Your task to perform on an android device: turn off airplane mode Image 0: 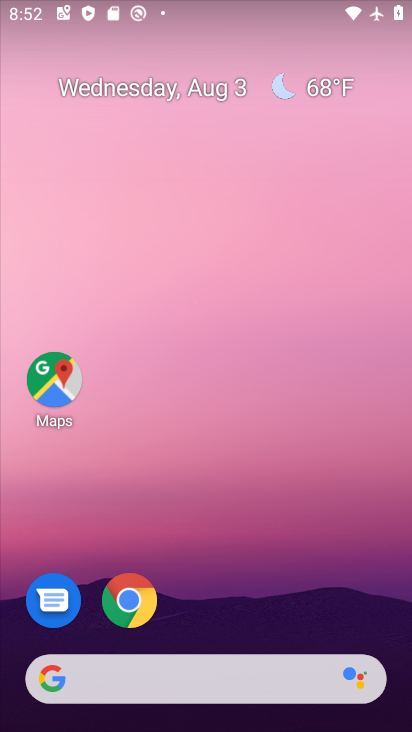
Step 0: drag from (214, 607) to (212, 20)
Your task to perform on an android device: turn off airplane mode Image 1: 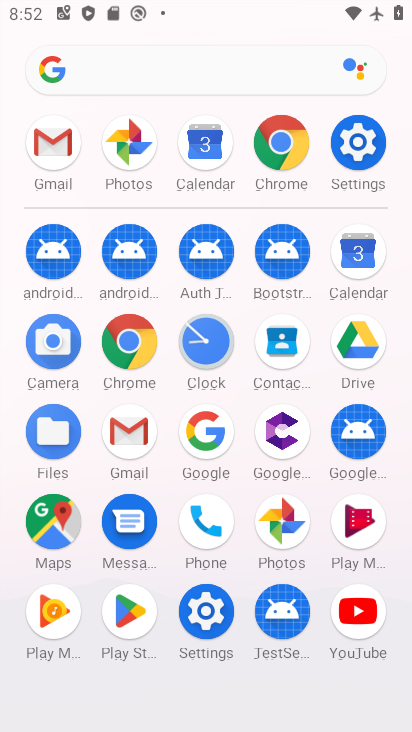
Step 1: click (198, 621)
Your task to perform on an android device: turn off airplane mode Image 2: 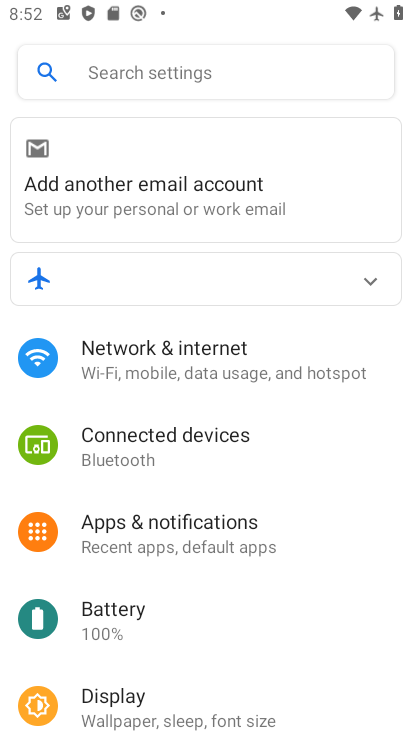
Step 2: click (185, 370)
Your task to perform on an android device: turn off airplane mode Image 3: 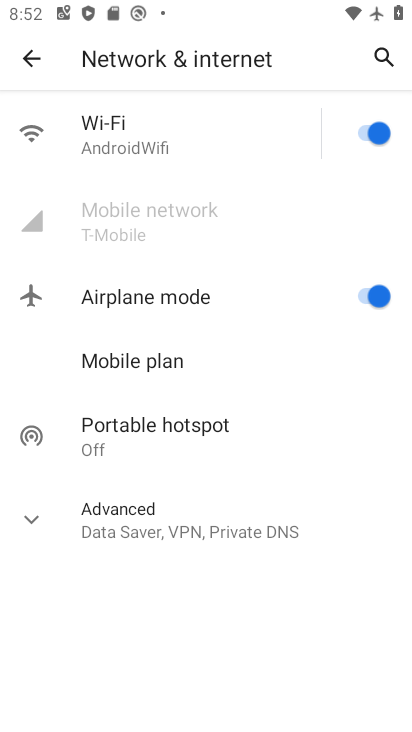
Step 3: click (356, 299)
Your task to perform on an android device: turn off airplane mode Image 4: 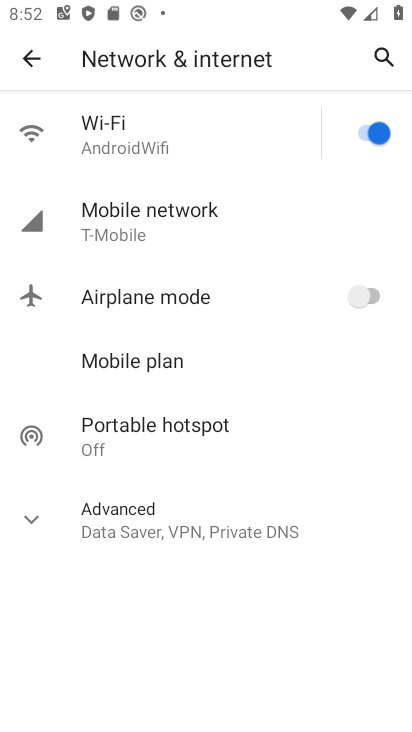
Step 4: task complete